Your task to perform on an android device: Turn off the flashlight Image 0: 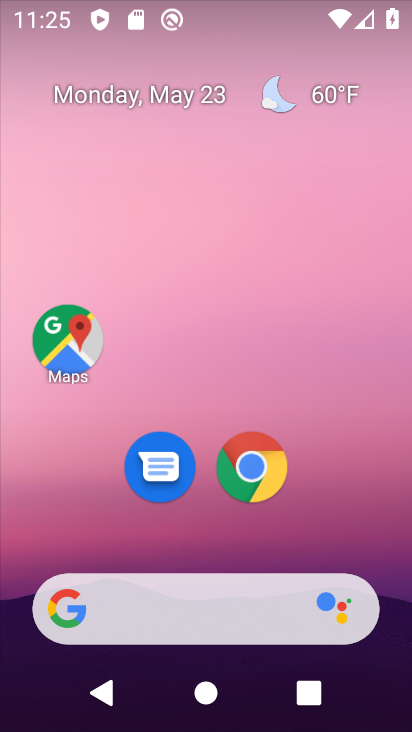
Step 0: drag from (282, 646) to (332, 0)
Your task to perform on an android device: Turn off the flashlight Image 1: 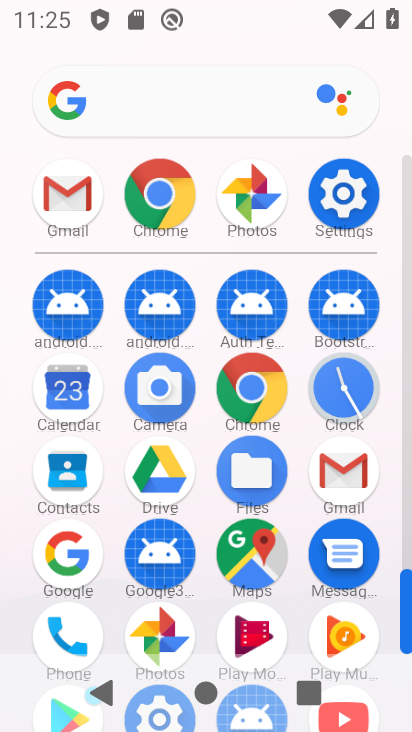
Step 1: click (343, 201)
Your task to perform on an android device: Turn off the flashlight Image 2: 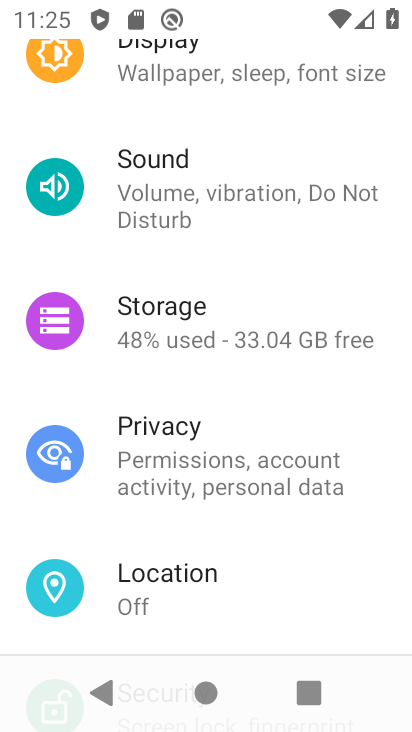
Step 2: task complete